Your task to perform on an android device: Do I have any events this weekend? Image 0: 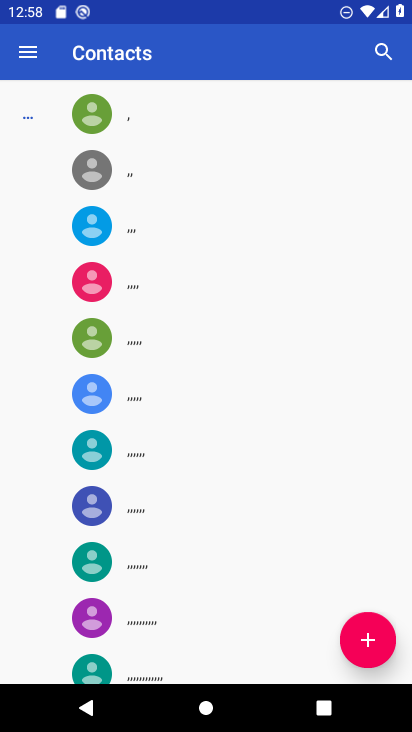
Step 0: press home button
Your task to perform on an android device: Do I have any events this weekend? Image 1: 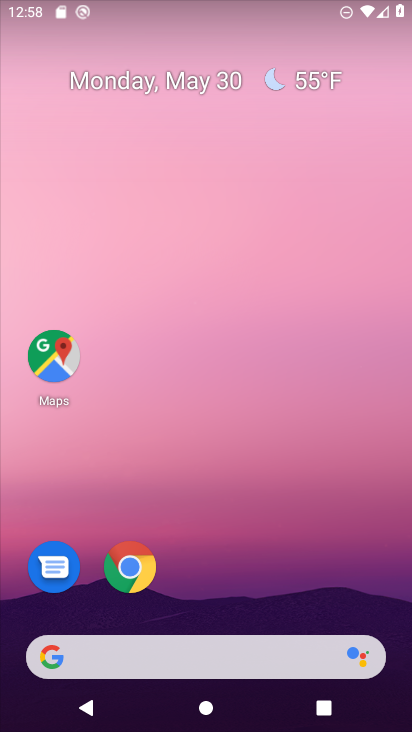
Step 1: drag from (218, 602) to (219, 135)
Your task to perform on an android device: Do I have any events this weekend? Image 2: 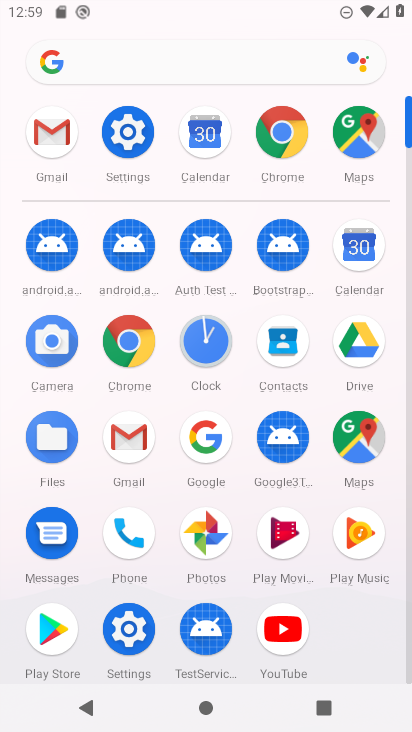
Step 2: click (356, 241)
Your task to perform on an android device: Do I have any events this weekend? Image 3: 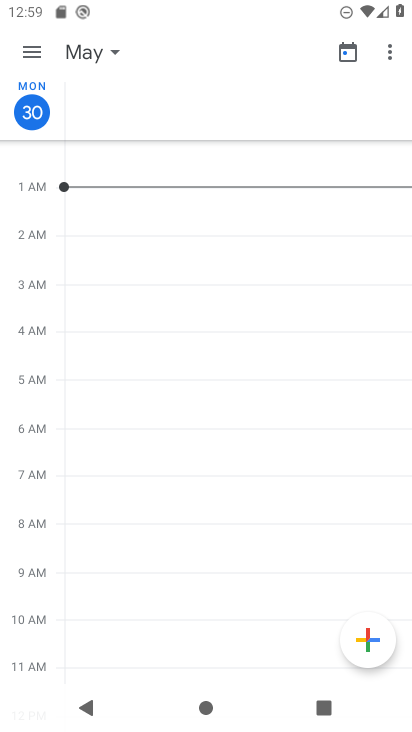
Step 3: click (30, 48)
Your task to perform on an android device: Do I have any events this weekend? Image 4: 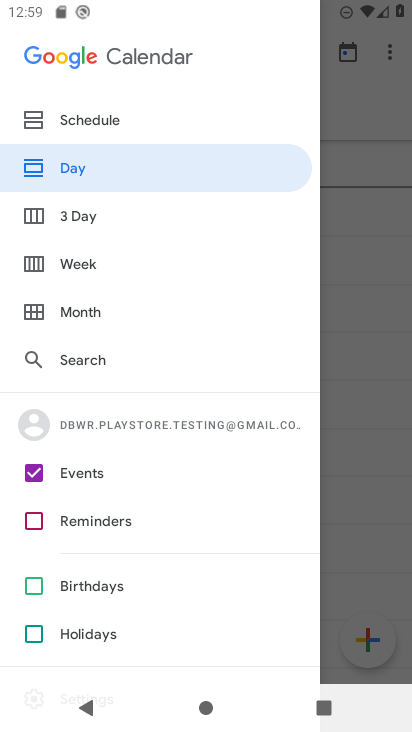
Step 4: click (72, 258)
Your task to perform on an android device: Do I have any events this weekend? Image 5: 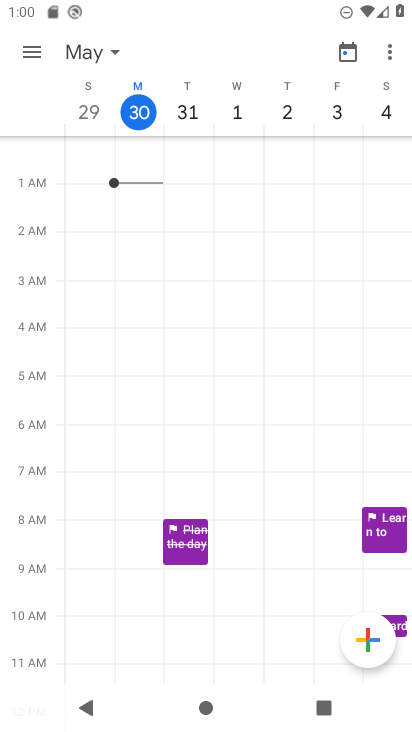
Step 5: click (133, 108)
Your task to perform on an android device: Do I have any events this weekend? Image 6: 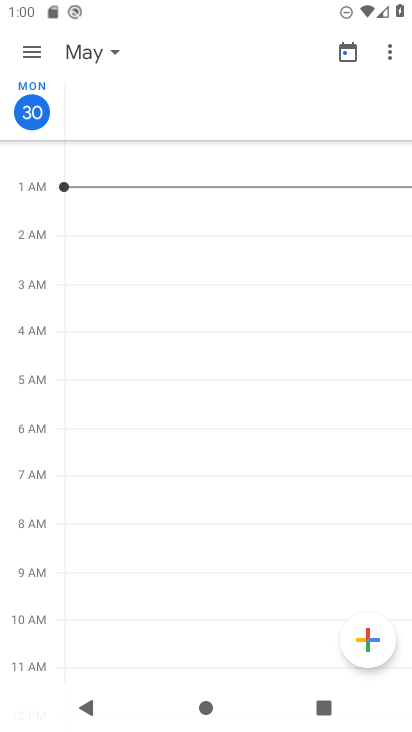
Step 6: click (53, 117)
Your task to perform on an android device: Do I have any events this weekend? Image 7: 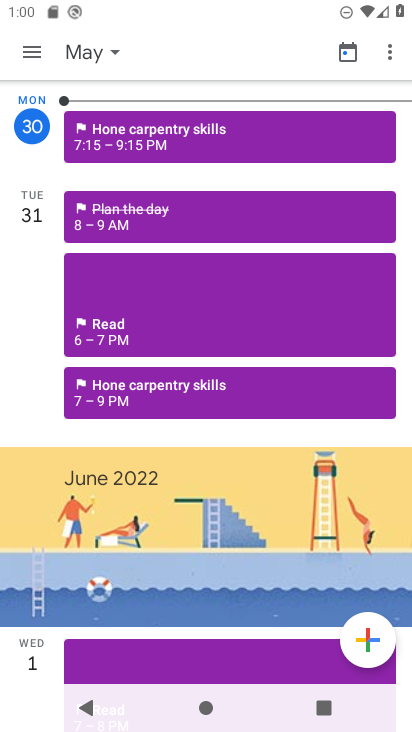
Step 7: task complete